Your task to perform on an android device: Show me recent news Image 0: 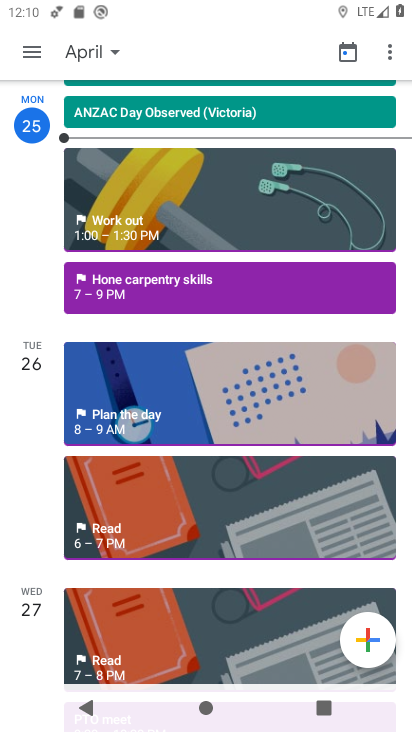
Step 0: press home button
Your task to perform on an android device: Show me recent news Image 1: 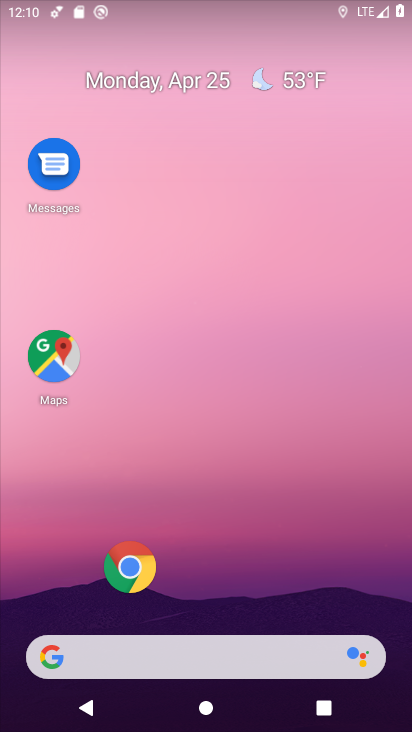
Step 1: drag from (230, 526) to (309, 30)
Your task to perform on an android device: Show me recent news Image 2: 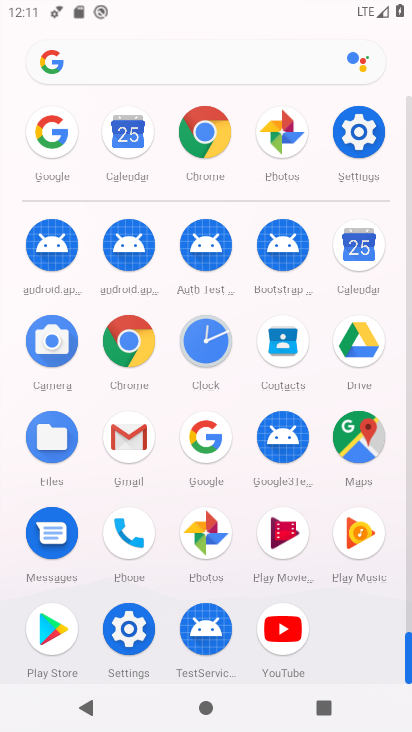
Step 2: click (211, 453)
Your task to perform on an android device: Show me recent news Image 3: 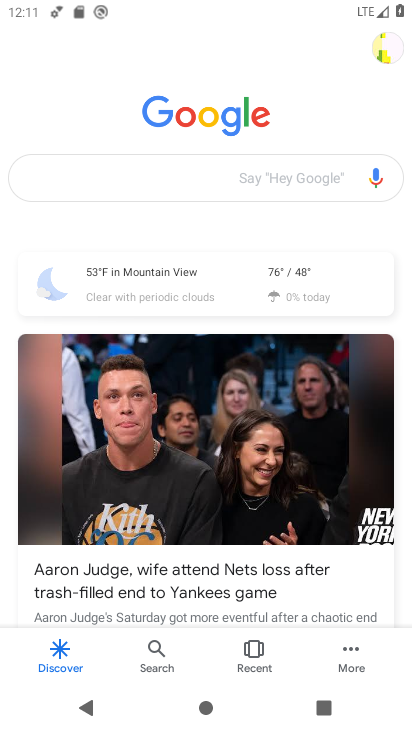
Step 3: click (224, 169)
Your task to perform on an android device: Show me recent news Image 4: 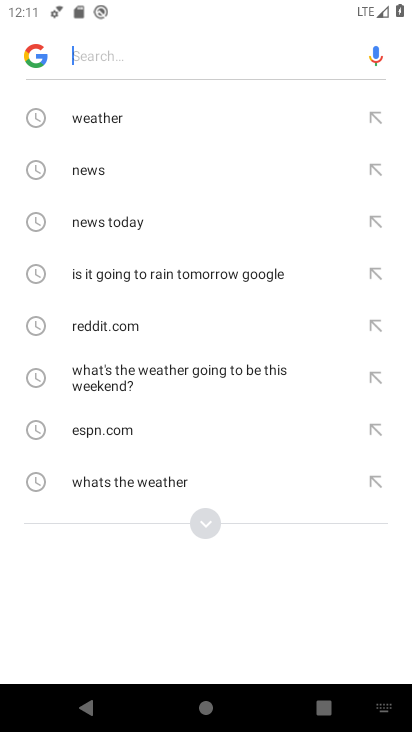
Step 4: click (186, 157)
Your task to perform on an android device: Show me recent news Image 5: 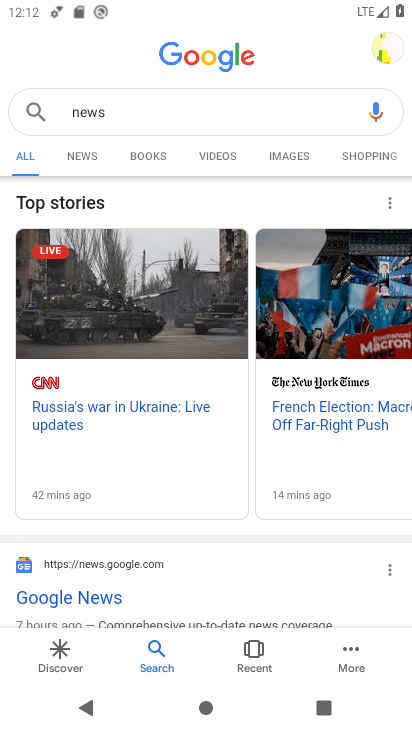
Step 5: click (86, 154)
Your task to perform on an android device: Show me recent news Image 6: 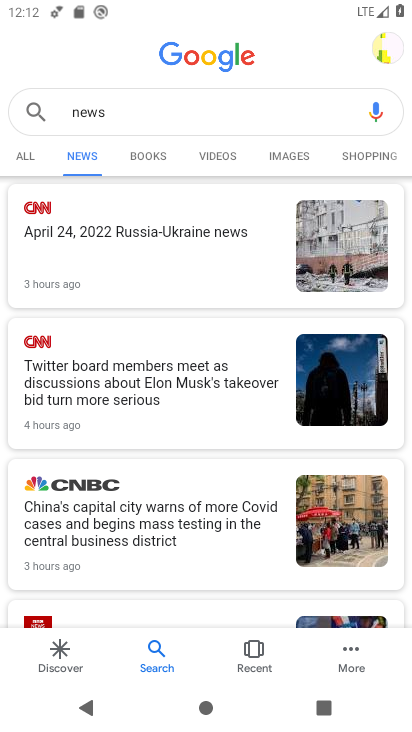
Step 6: task complete